Your task to perform on an android device: Open the calculator Image 0: 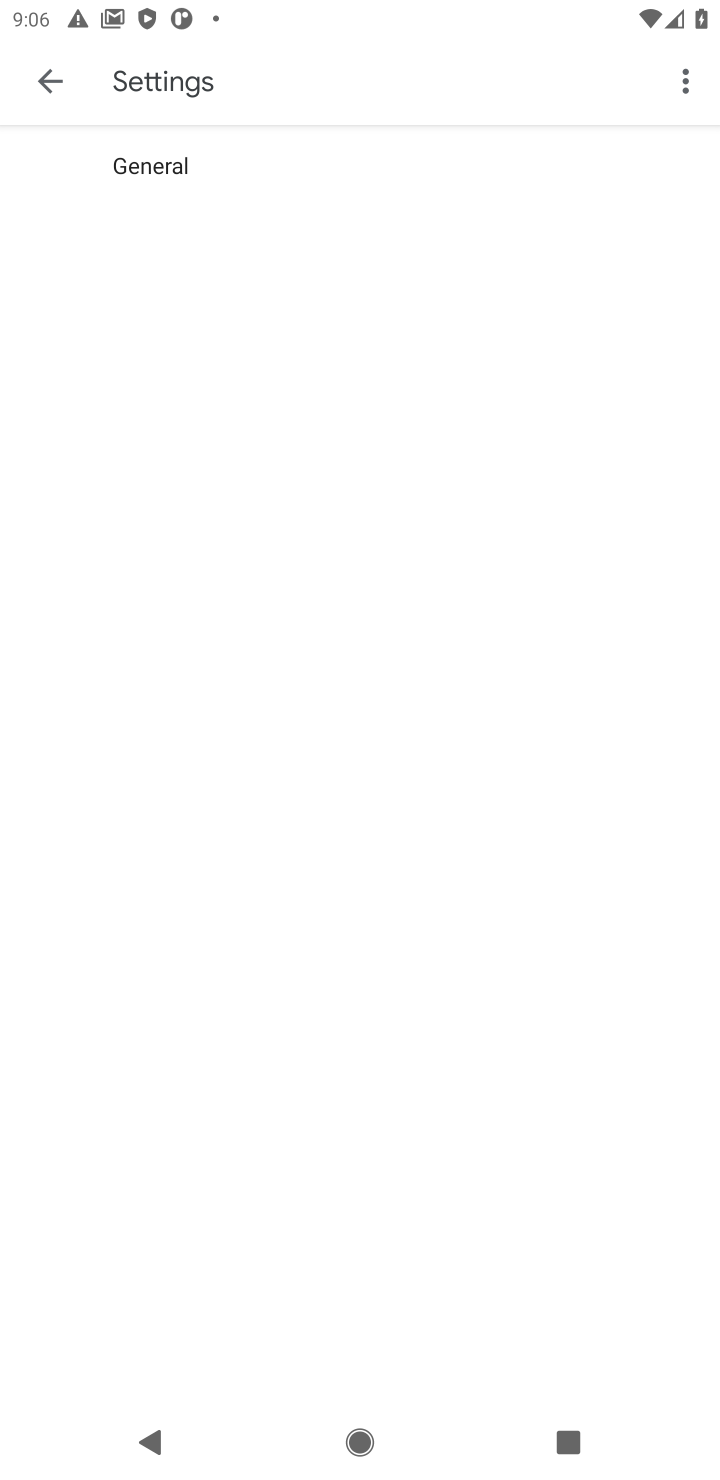
Step 0: press home button
Your task to perform on an android device: Open the calculator Image 1: 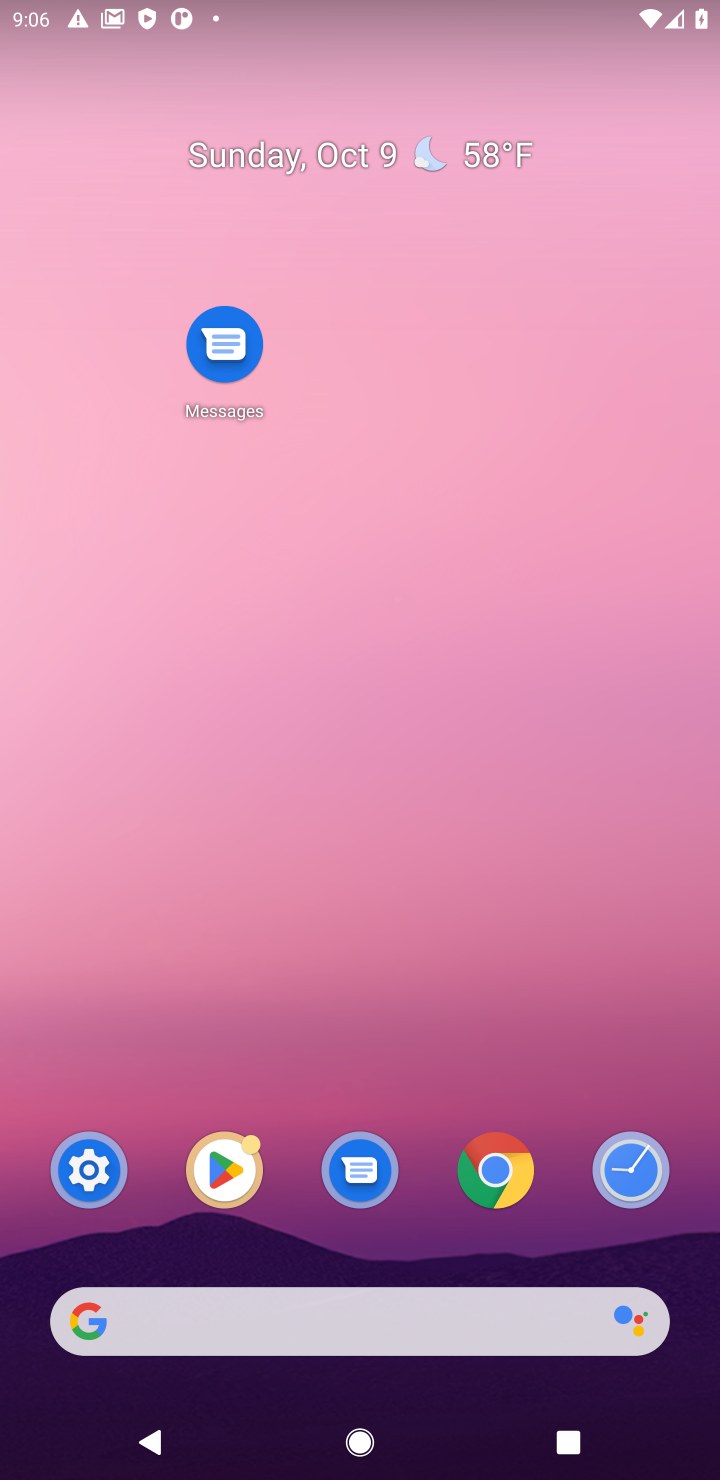
Step 1: drag from (384, 977) to (249, 64)
Your task to perform on an android device: Open the calculator Image 2: 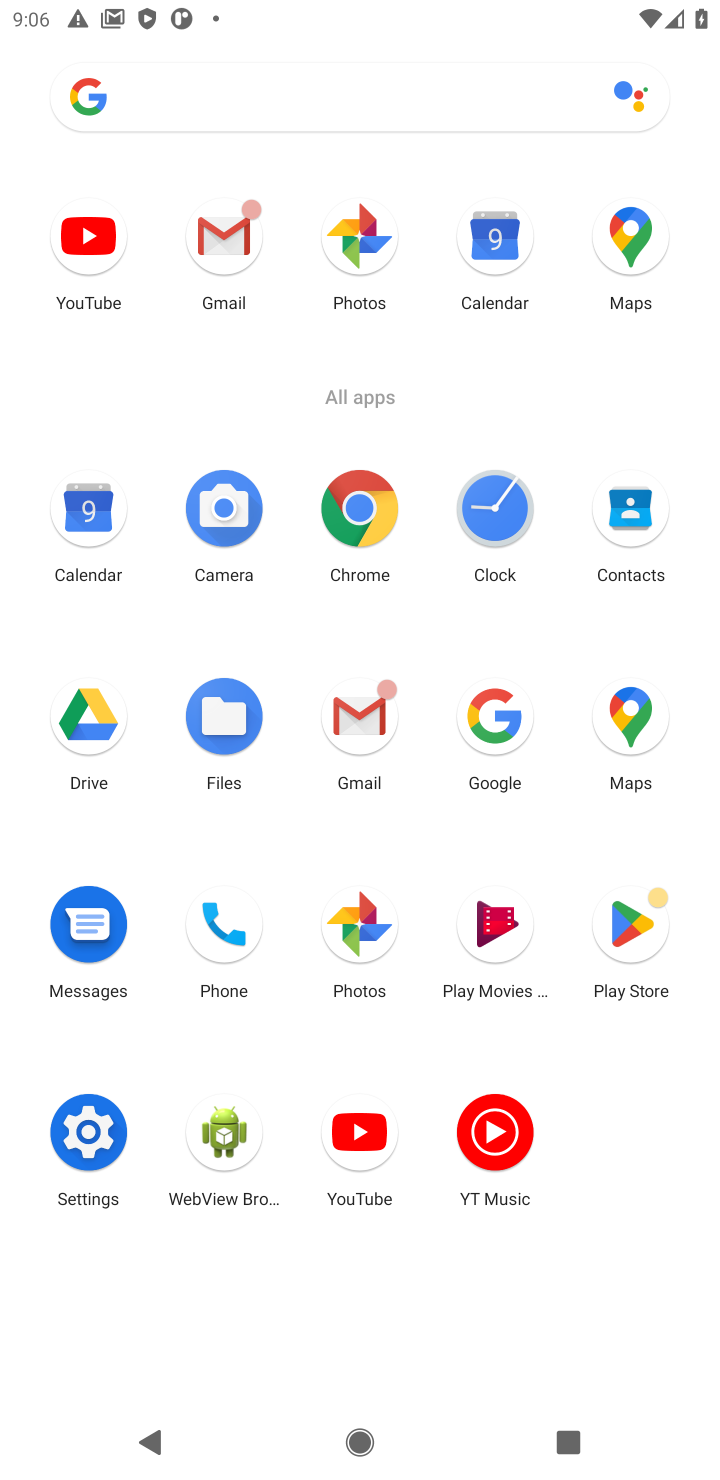
Step 2: click (92, 493)
Your task to perform on an android device: Open the calculator Image 3: 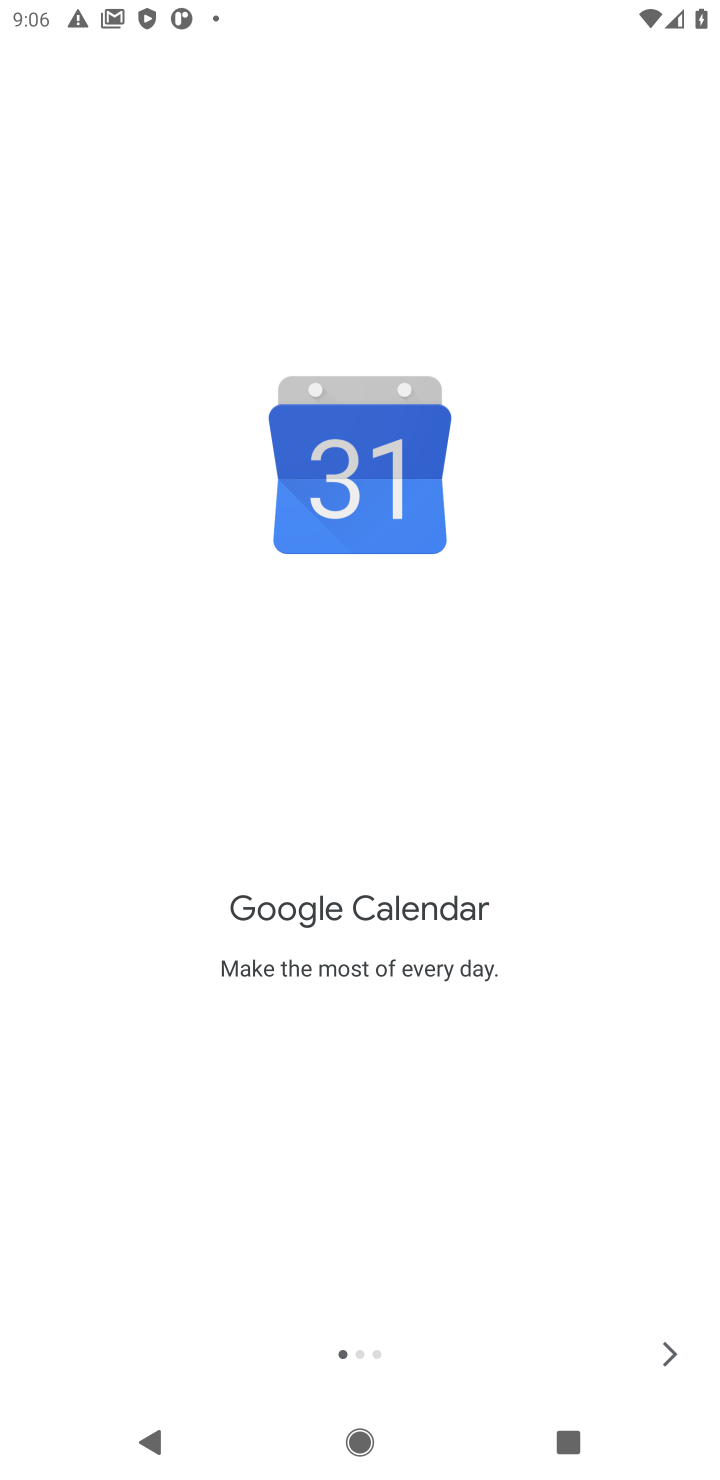
Step 3: press back button
Your task to perform on an android device: Open the calculator Image 4: 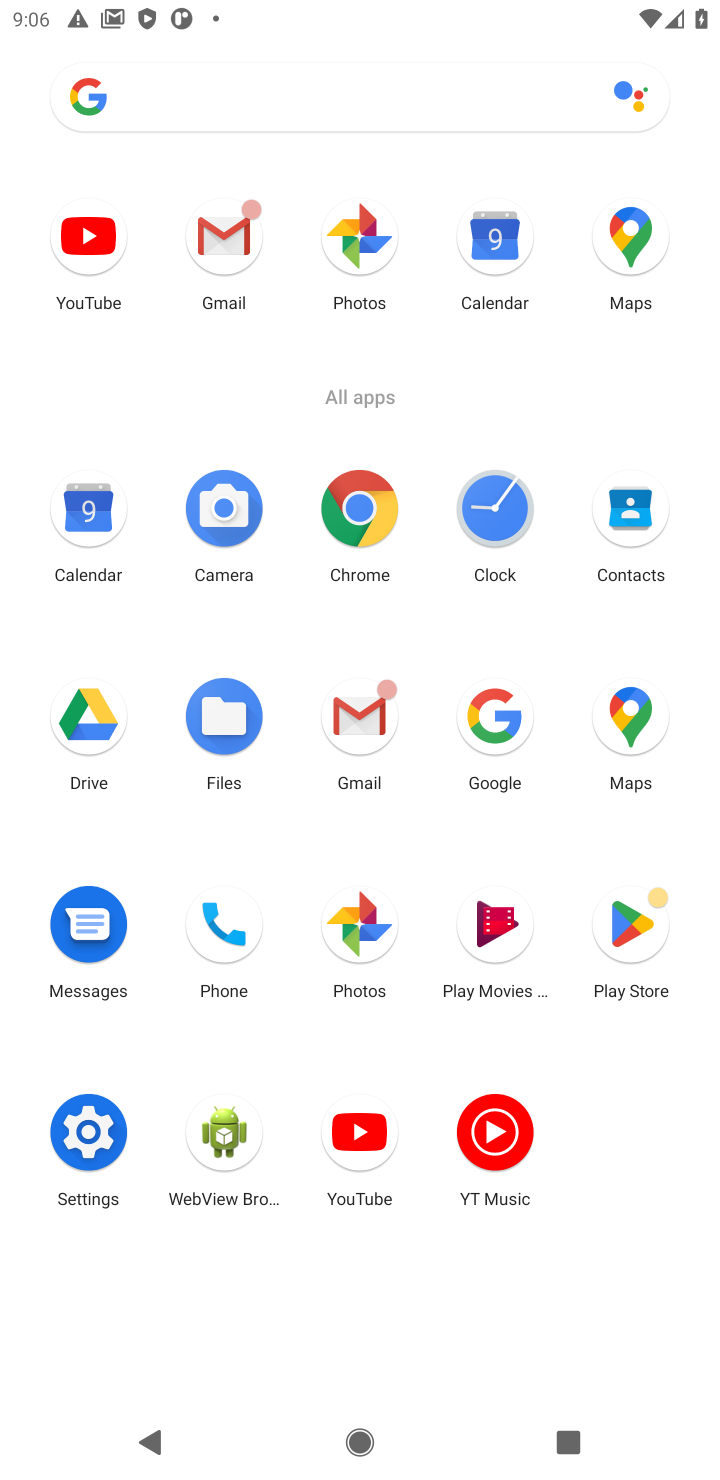
Step 4: drag from (648, 1015) to (101, 1181)
Your task to perform on an android device: Open the calculator Image 5: 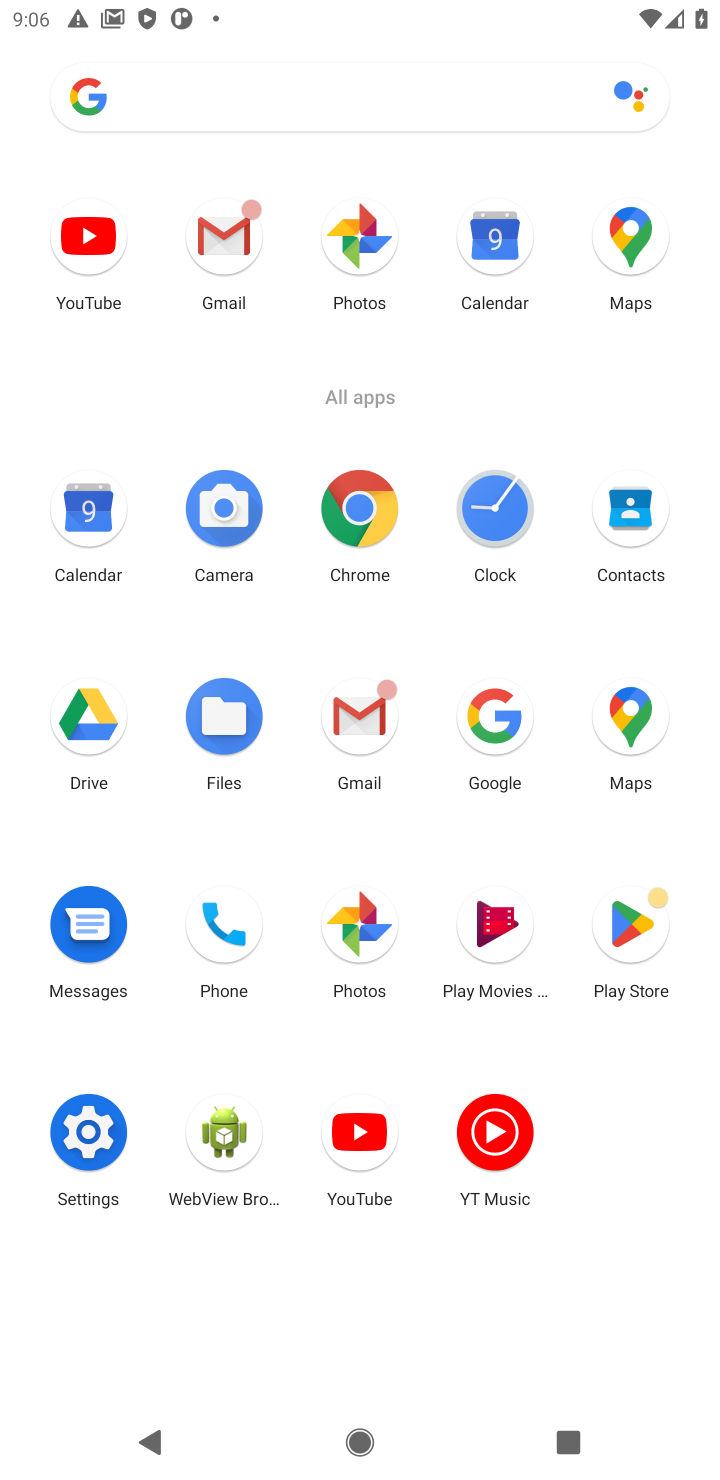
Step 5: press back button
Your task to perform on an android device: Open the calculator Image 6: 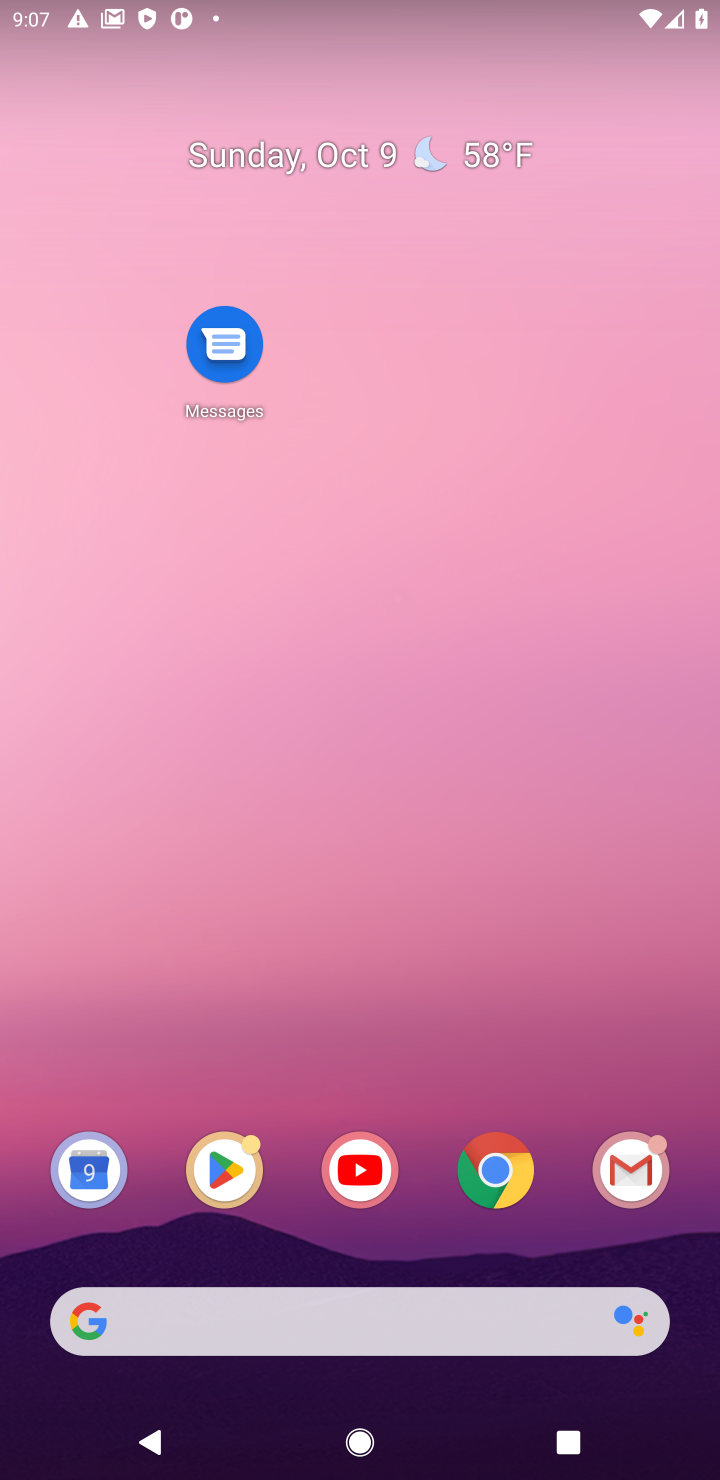
Step 6: drag from (352, 1177) to (41, 63)
Your task to perform on an android device: Open the calculator Image 7: 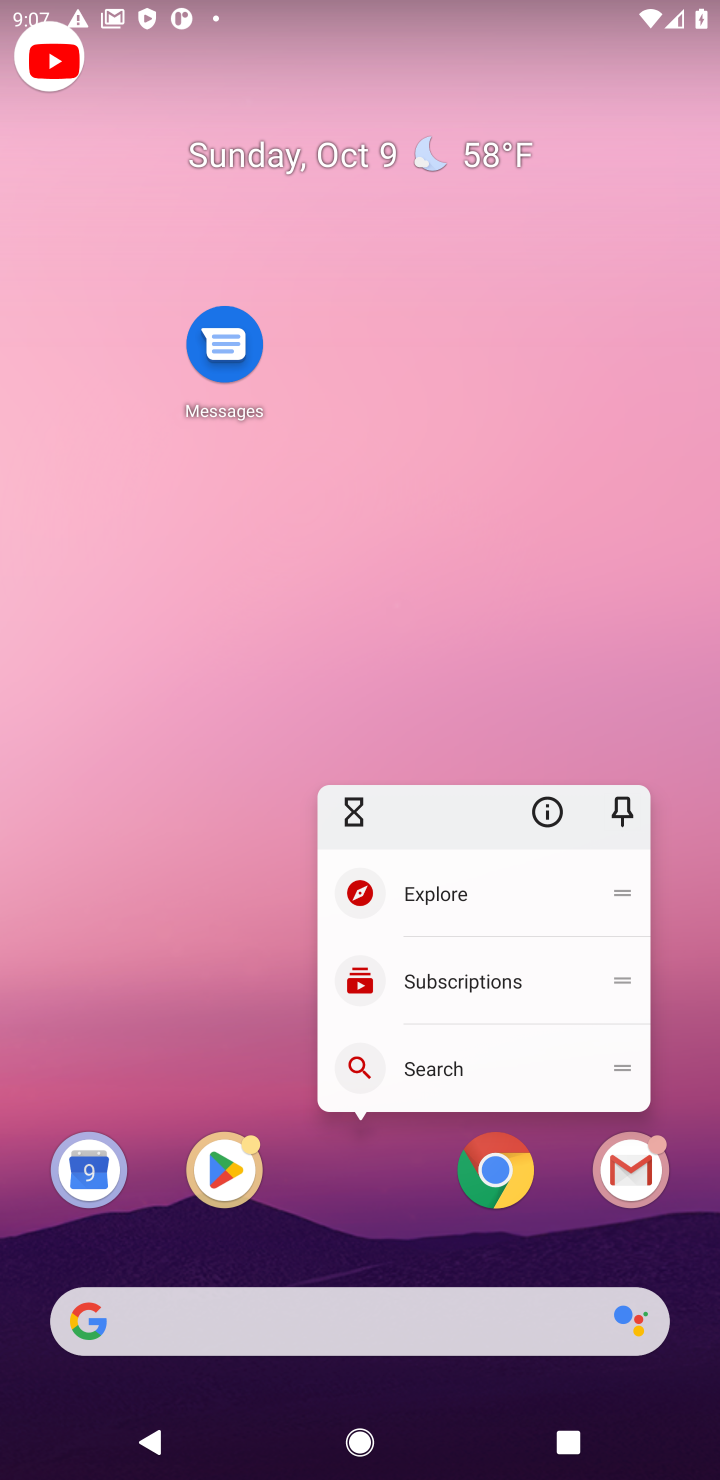
Step 7: click (231, 512)
Your task to perform on an android device: Open the calculator Image 8: 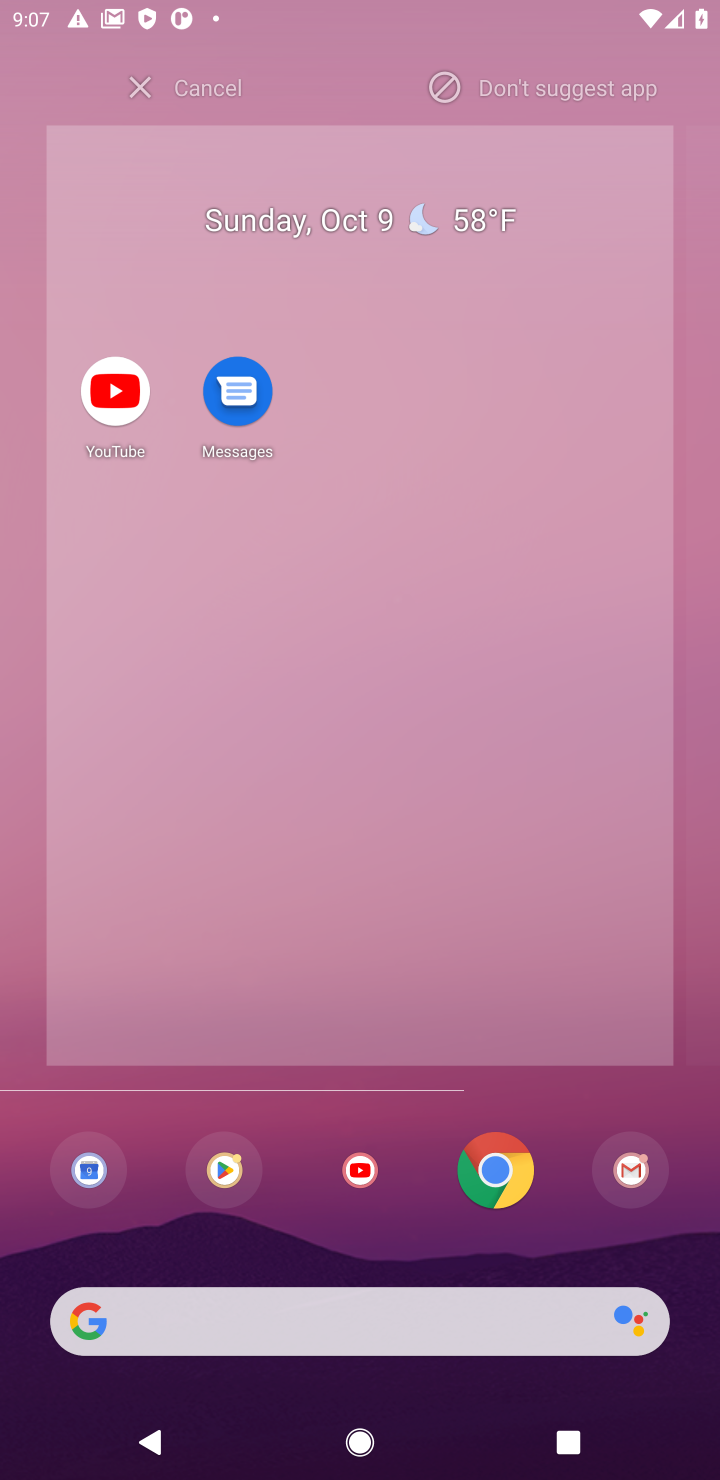
Step 8: drag from (395, 650) to (173, 806)
Your task to perform on an android device: Open the calculator Image 9: 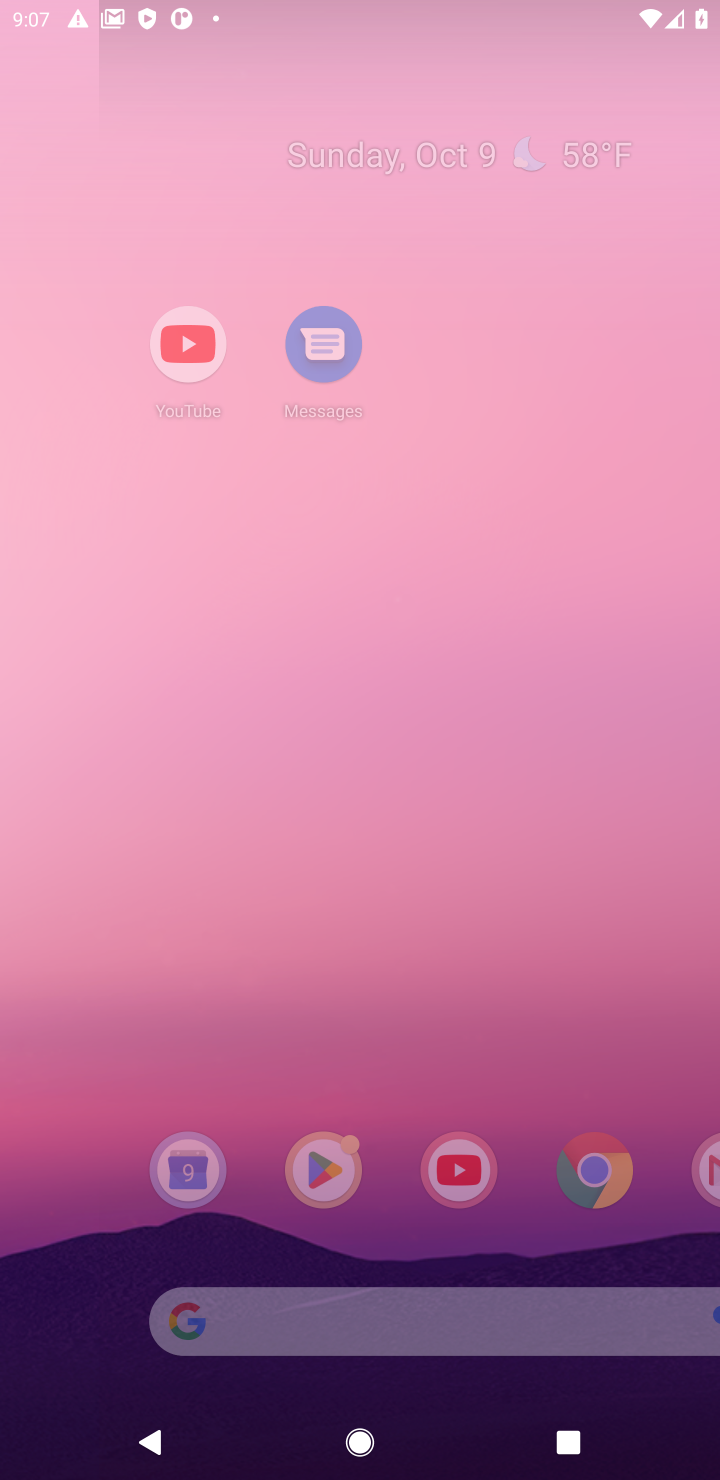
Step 9: drag from (461, 719) to (134, 808)
Your task to perform on an android device: Open the calculator Image 10: 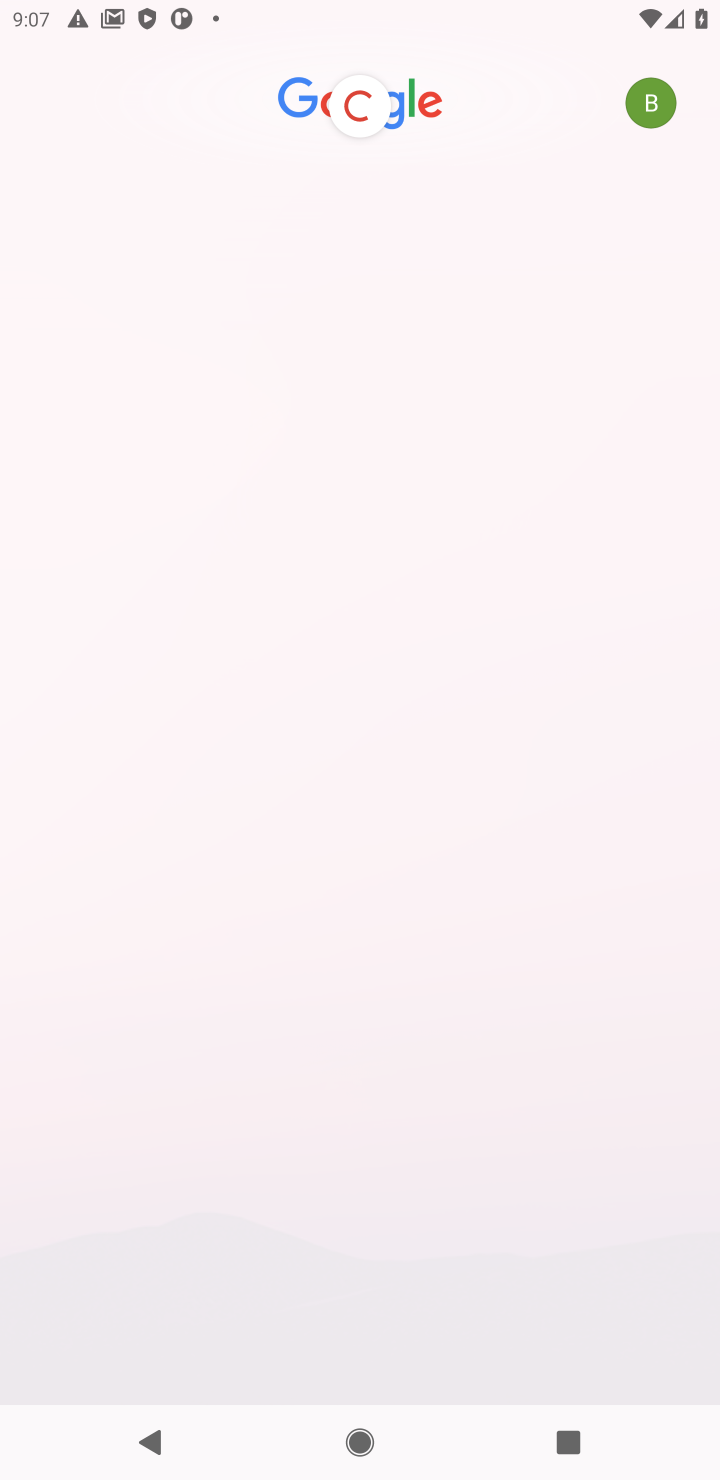
Step 10: press home button
Your task to perform on an android device: Open the calculator Image 11: 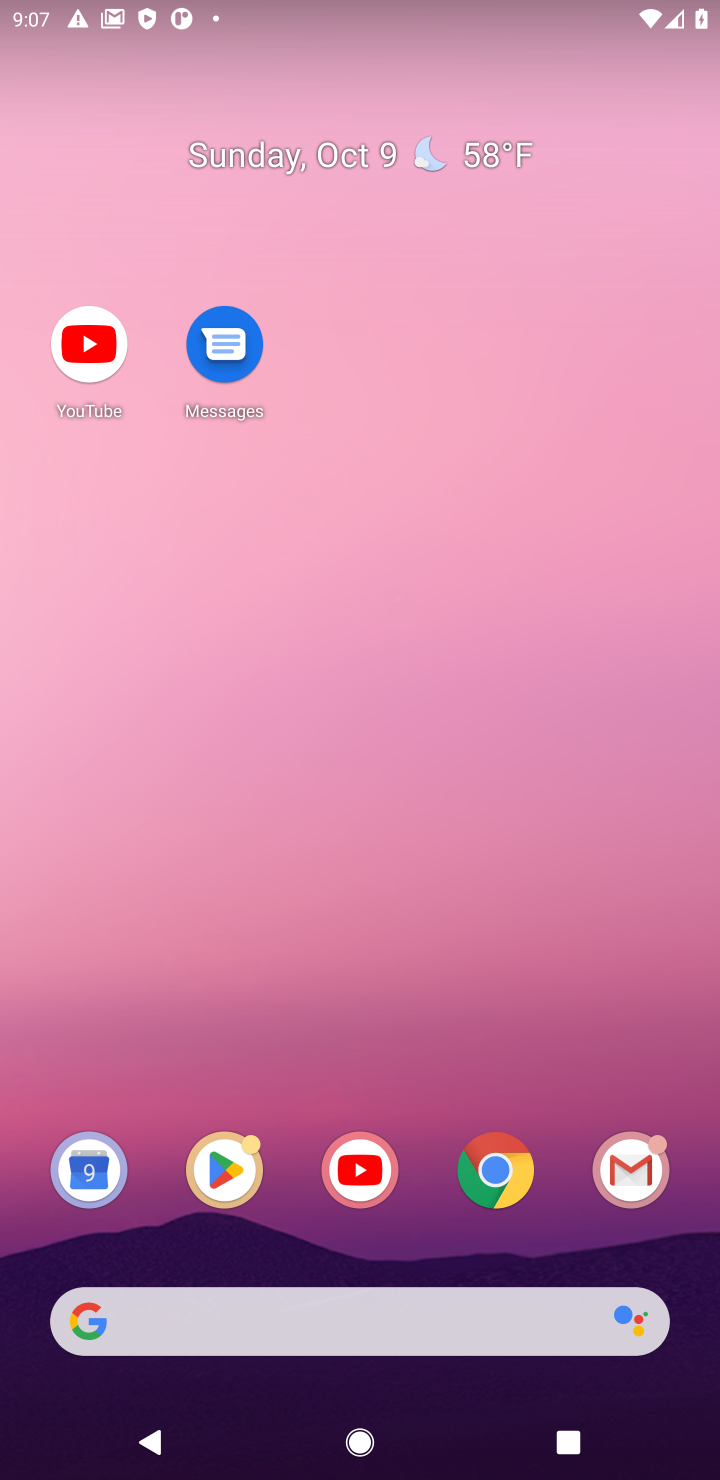
Step 11: drag from (24, 949) to (74, 1069)
Your task to perform on an android device: Open the calculator Image 12: 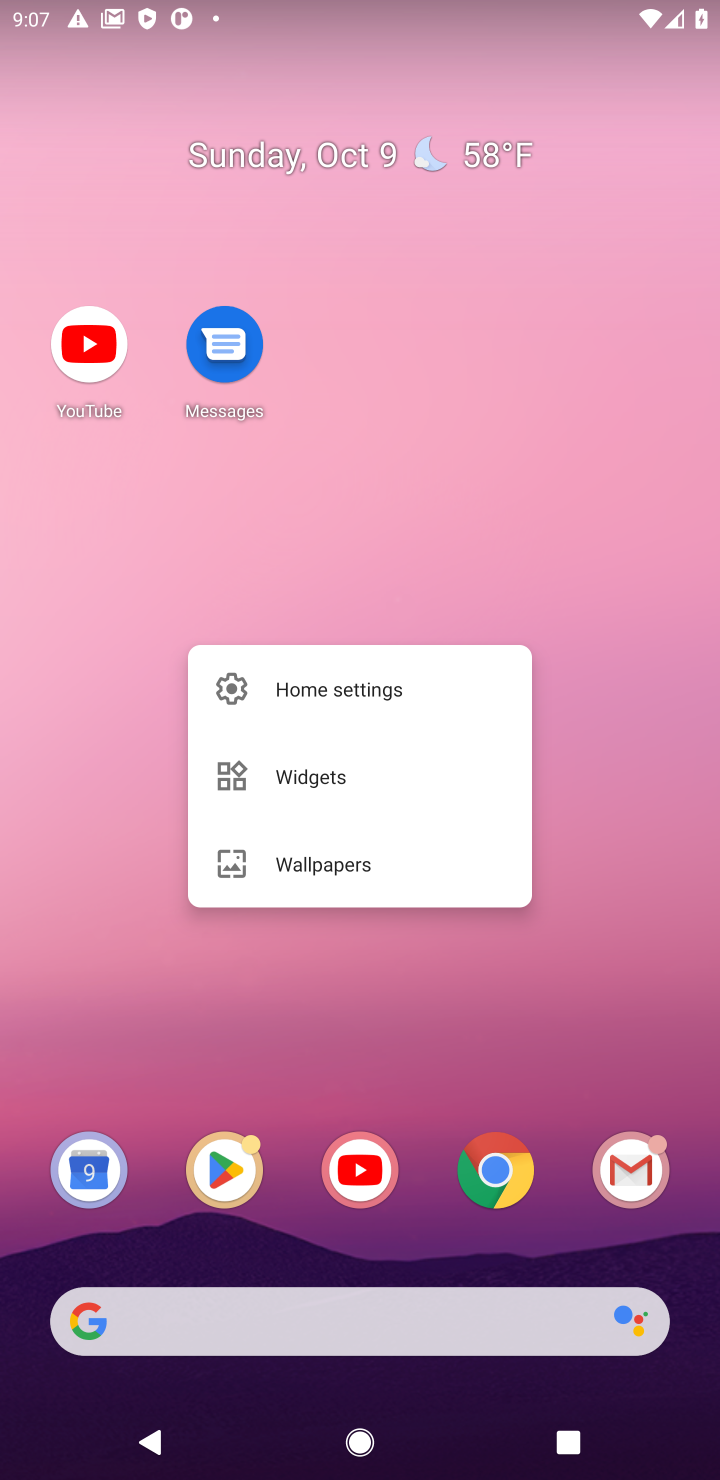
Step 12: click (457, 1304)
Your task to perform on an android device: Open the calculator Image 13: 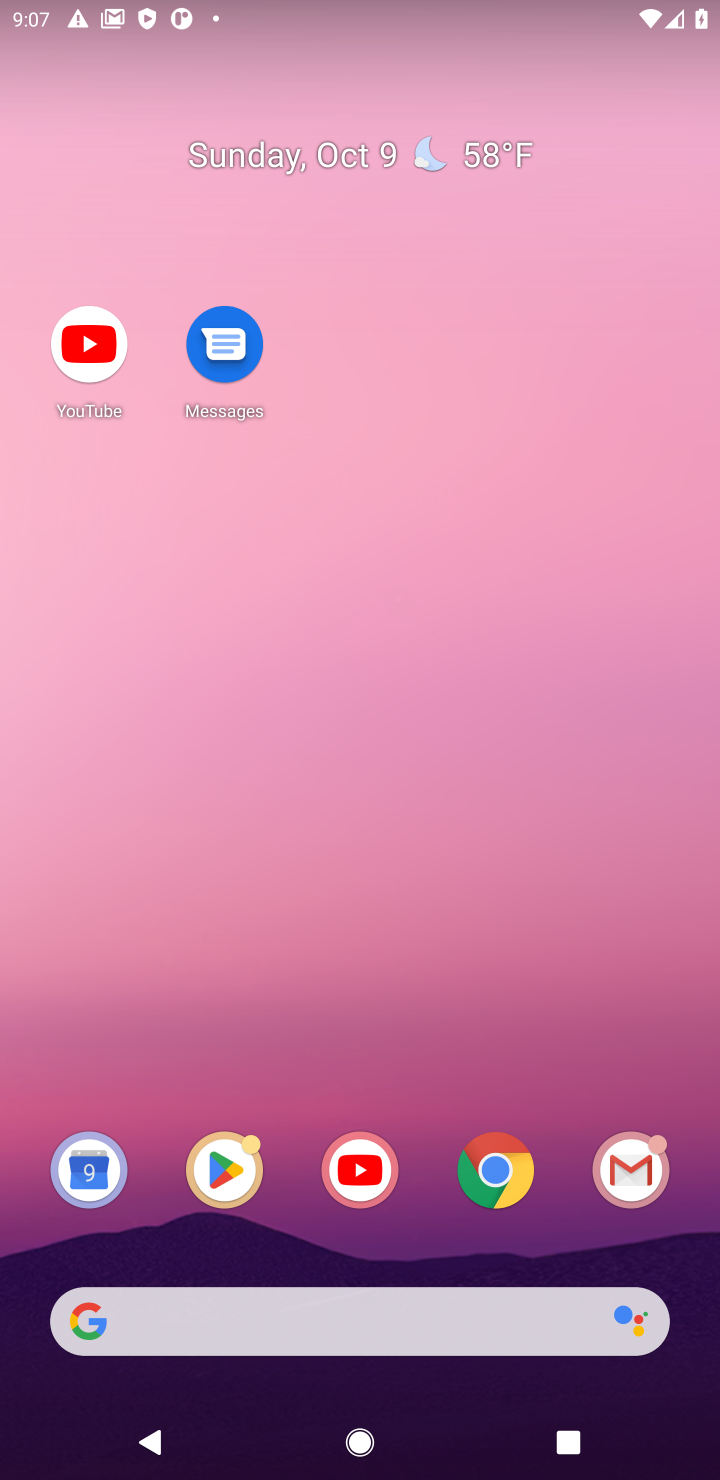
Step 13: drag from (398, 1233) to (178, 19)
Your task to perform on an android device: Open the calculator Image 14: 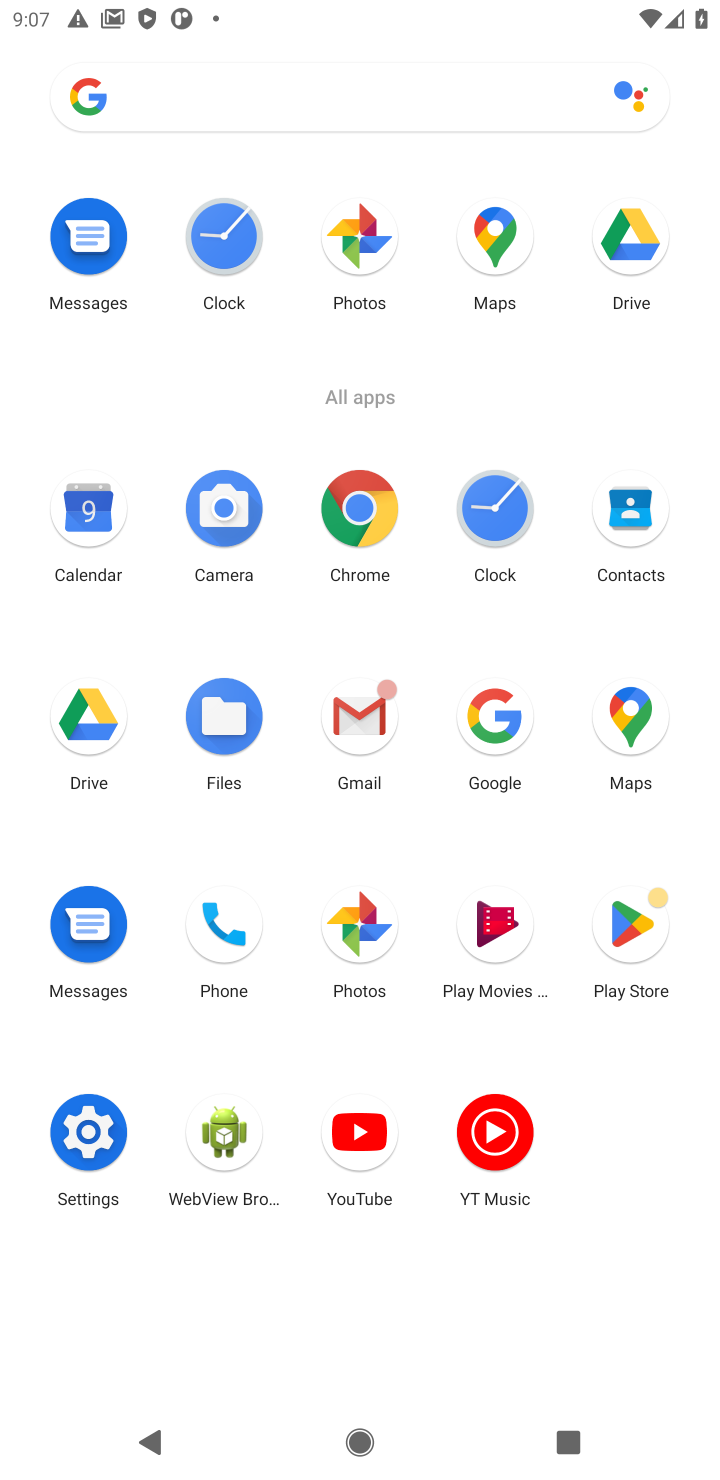
Step 14: click (53, 1177)
Your task to perform on an android device: Open the calculator Image 15: 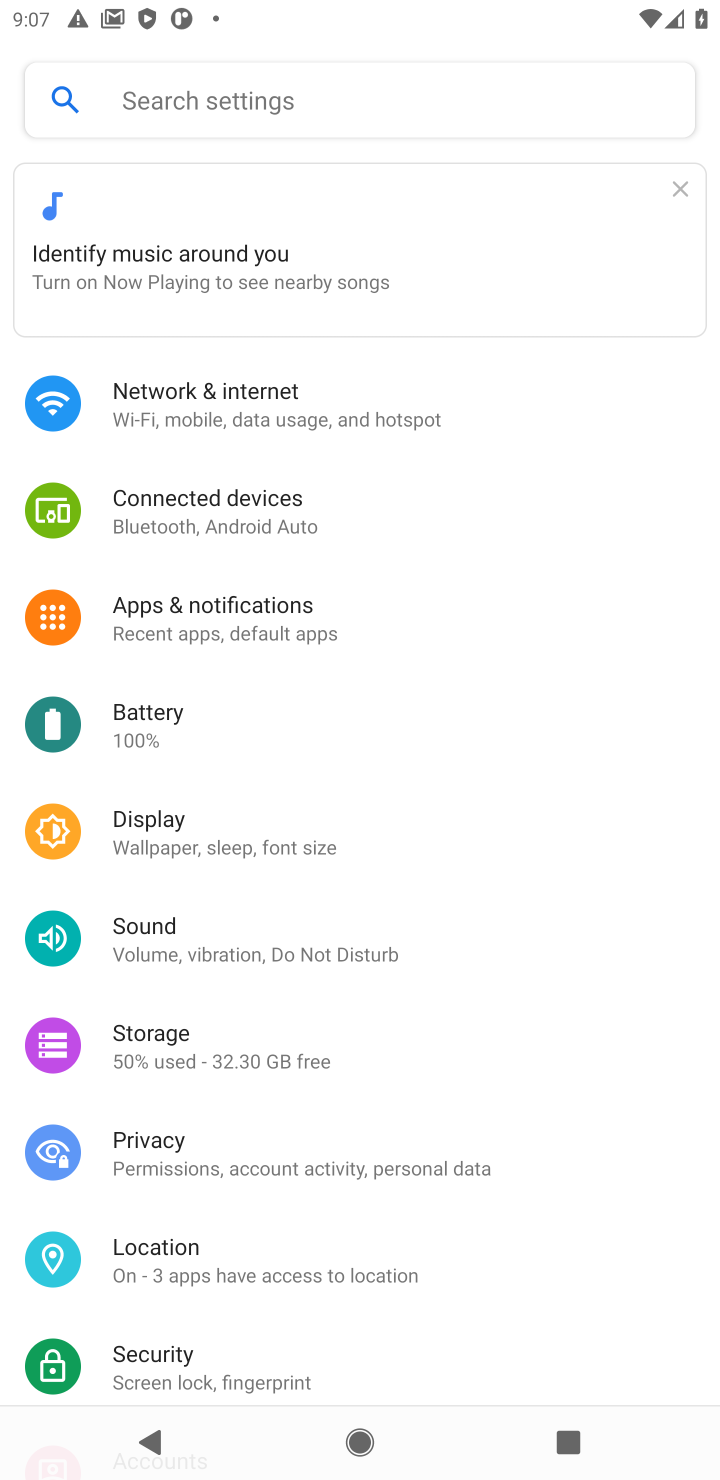
Step 15: click (70, 1140)
Your task to perform on an android device: Open the calculator Image 16: 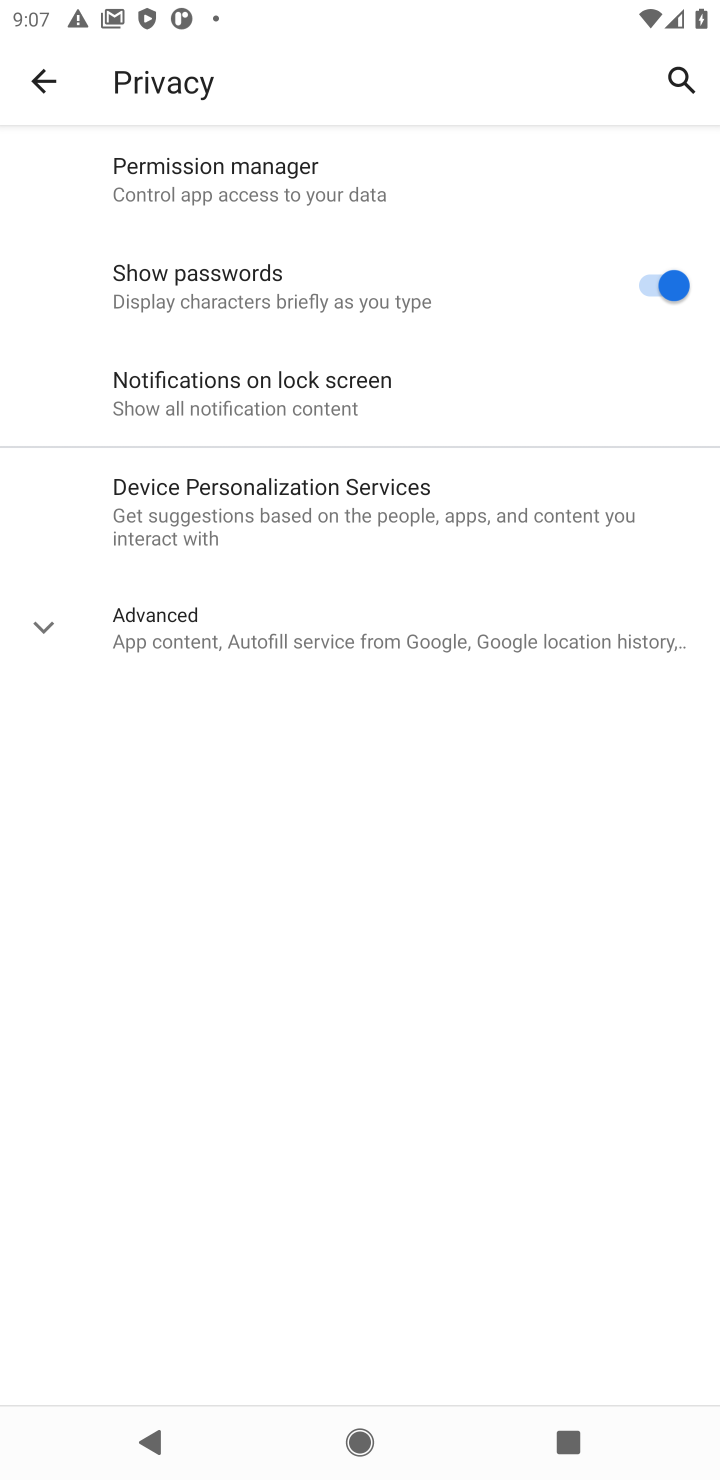
Step 16: task complete